Your task to perform on an android device: Open notification settings Image 0: 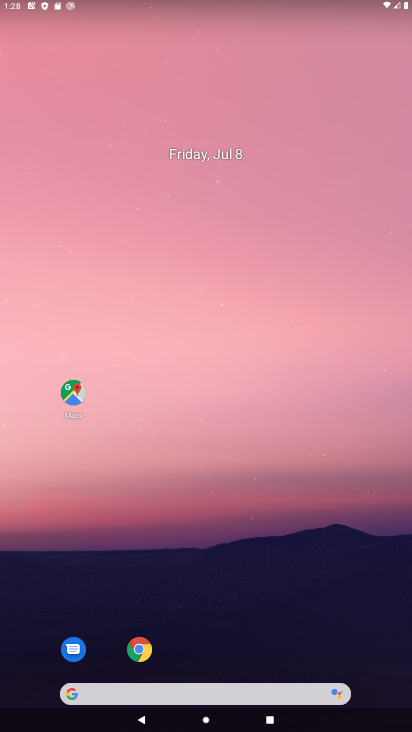
Step 0: drag from (49, 649) to (139, 237)
Your task to perform on an android device: Open notification settings Image 1: 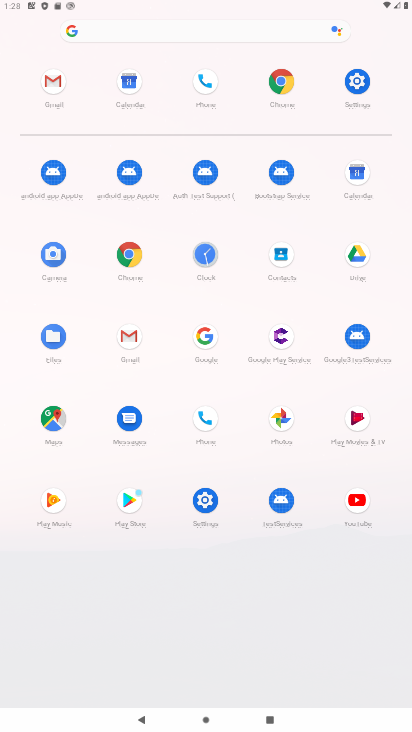
Step 1: click (206, 509)
Your task to perform on an android device: Open notification settings Image 2: 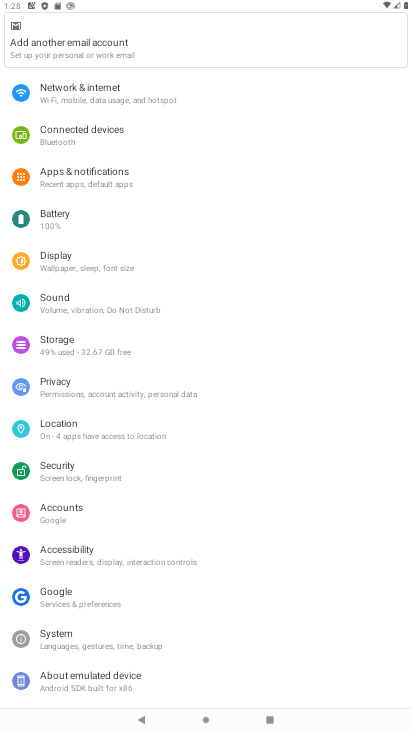
Step 2: click (109, 179)
Your task to perform on an android device: Open notification settings Image 3: 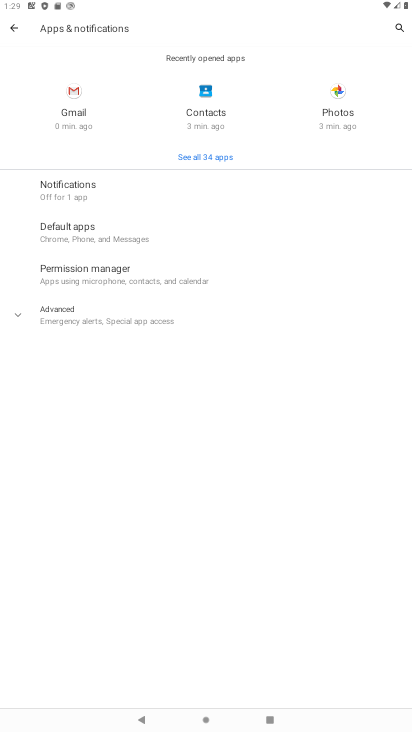
Step 3: click (83, 209)
Your task to perform on an android device: Open notification settings Image 4: 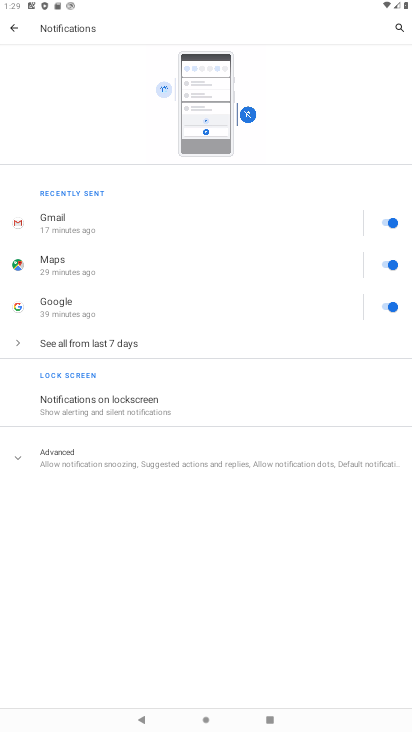
Step 4: task complete